Your task to perform on an android device: Open maps Image 0: 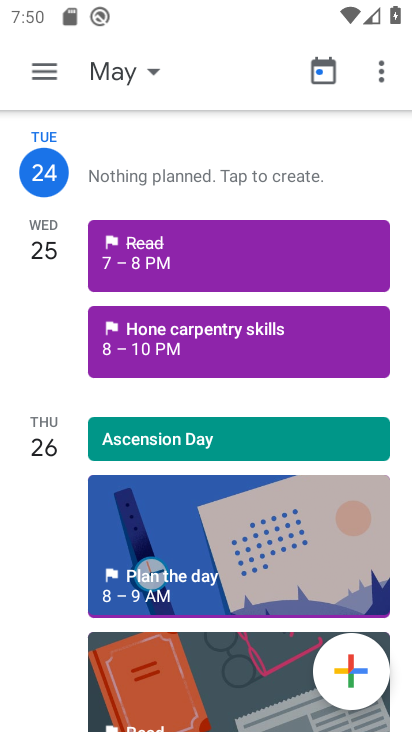
Step 0: press home button
Your task to perform on an android device: Open maps Image 1: 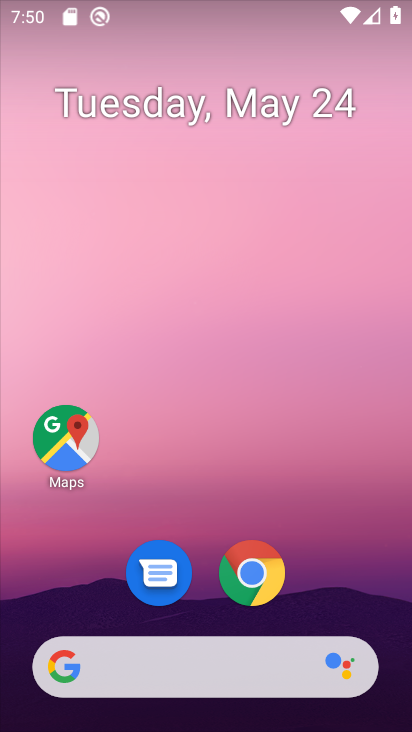
Step 1: click (101, 455)
Your task to perform on an android device: Open maps Image 2: 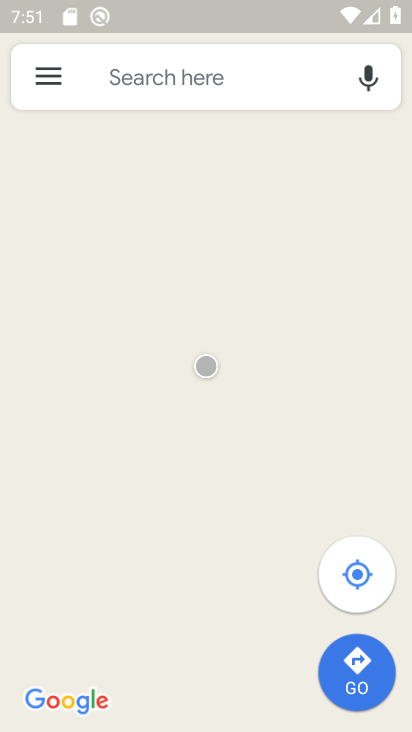
Step 2: task complete